Your task to perform on an android device: When is my next appointment? Image 0: 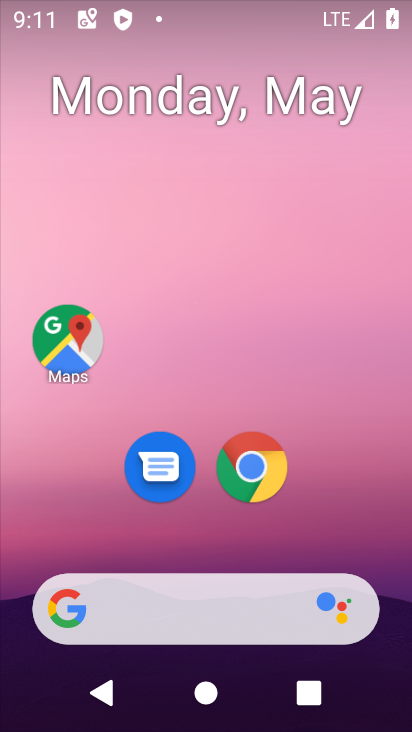
Step 0: drag from (334, 521) to (253, 30)
Your task to perform on an android device: When is my next appointment? Image 1: 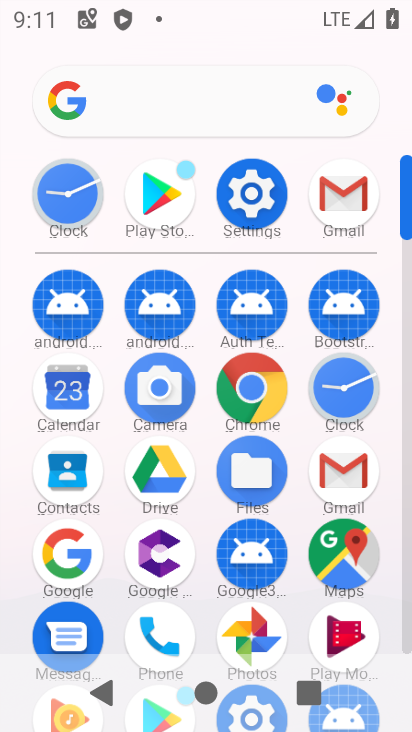
Step 1: click (52, 393)
Your task to perform on an android device: When is my next appointment? Image 2: 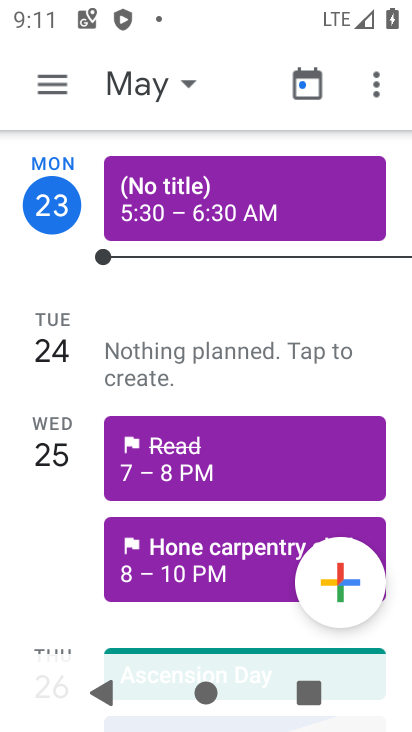
Step 2: task complete